Your task to perform on an android device: Clear the shopping cart on newegg.com. Add apple airpods to the cart on newegg.com Image 0: 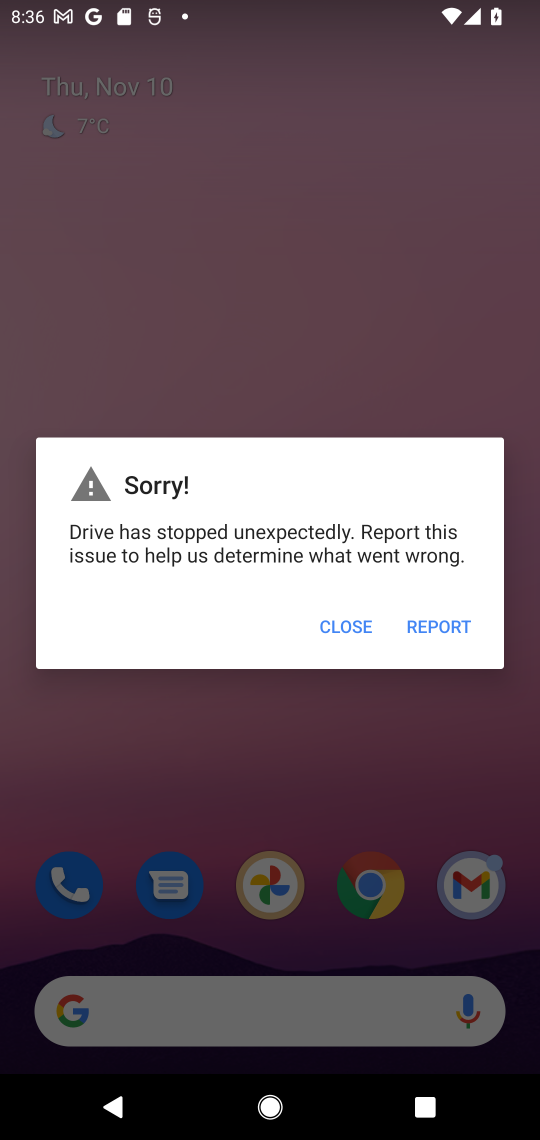
Step 0: press home button
Your task to perform on an android device: Clear the shopping cart on newegg.com. Add apple airpods to the cart on newegg.com Image 1: 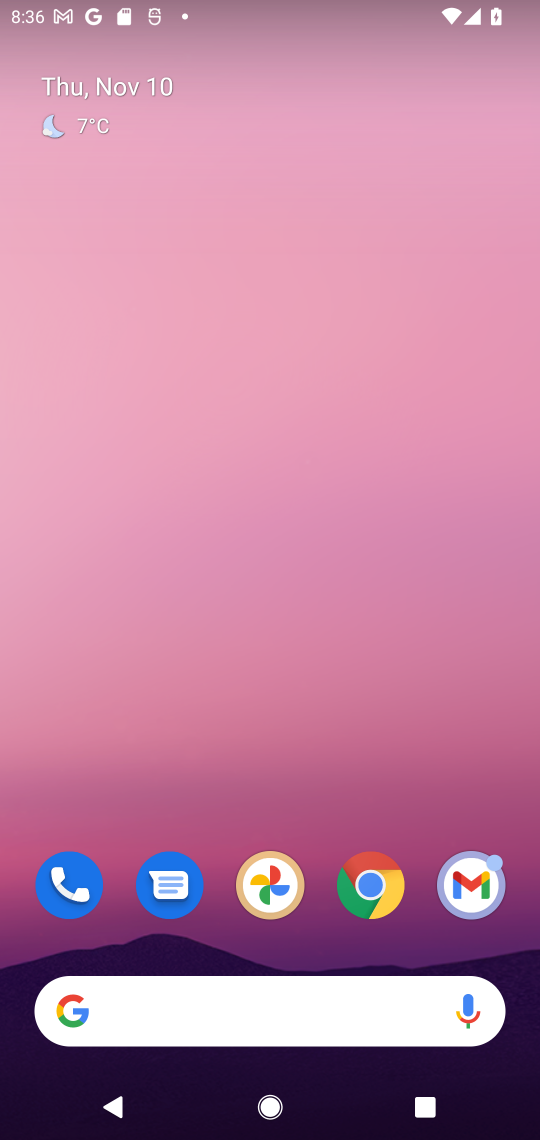
Step 1: click (362, 868)
Your task to perform on an android device: Clear the shopping cart on newegg.com. Add apple airpods to the cart on newegg.com Image 2: 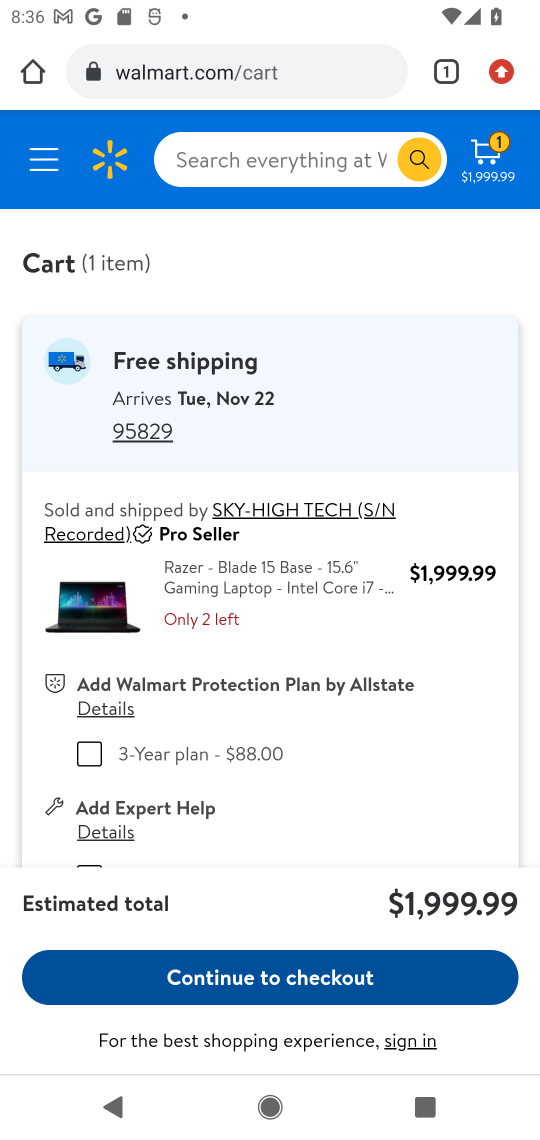
Step 2: click (279, 67)
Your task to perform on an android device: Clear the shopping cart on newegg.com. Add apple airpods to the cart on newegg.com Image 3: 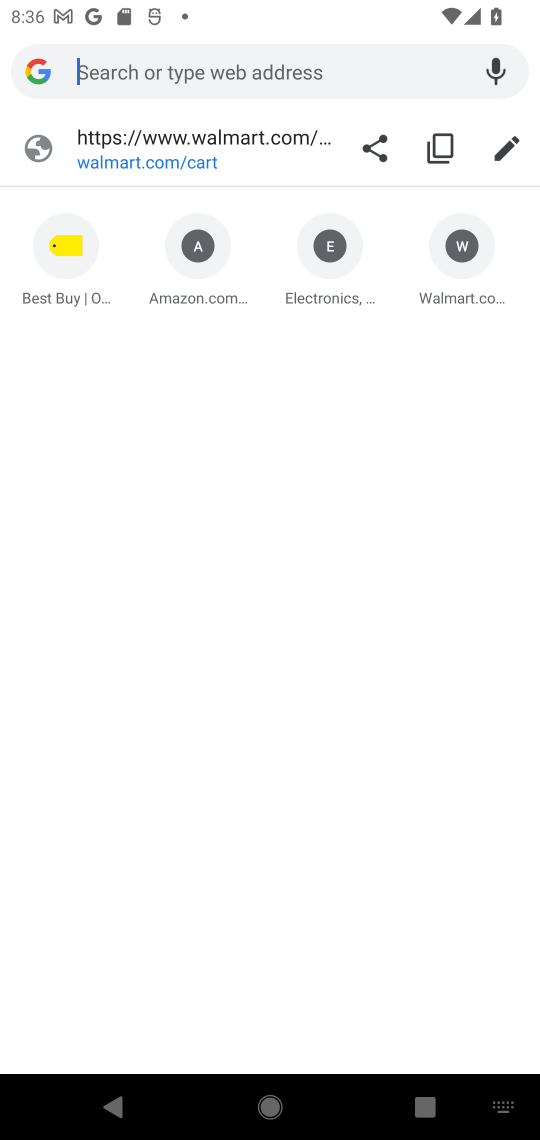
Step 3: type "newegg.com"
Your task to perform on an android device: Clear the shopping cart on newegg.com. Add apple airpods to the cart on newegg.com Image 4: 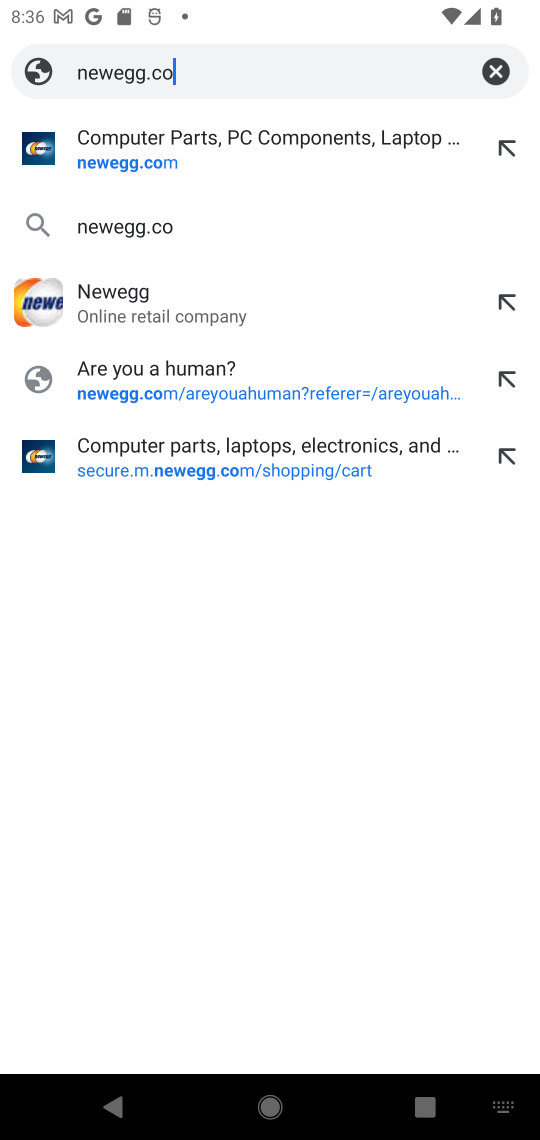
Step 4: press enter
Your task to perform on an android device: Clear the shopping cart on newegg.com. Add apple airpods to the cart on newegg.com Image 5: 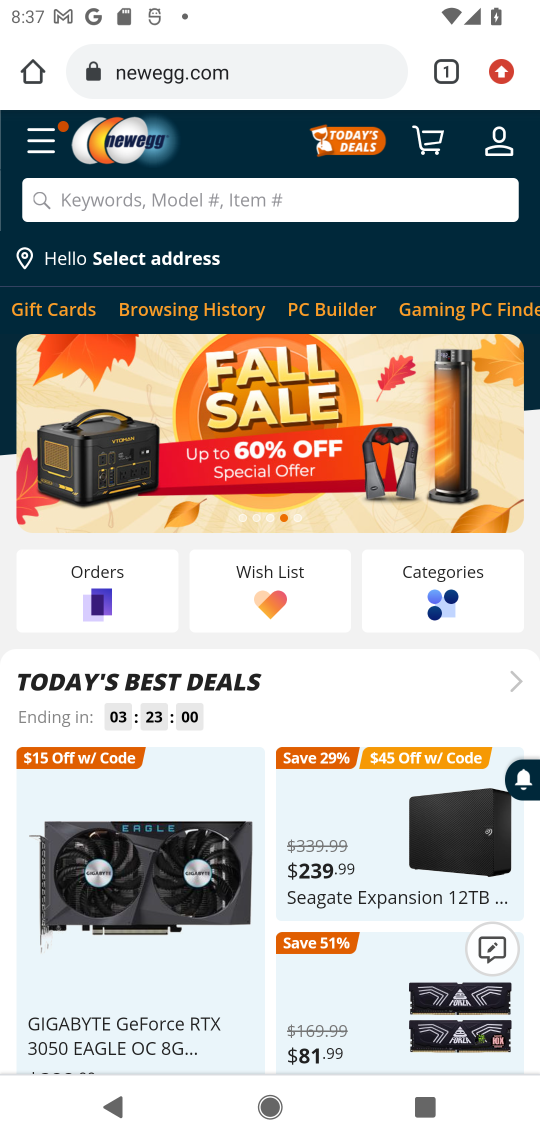
Step 5: click (431, 142)
Your task to perform on an android device: Clear the shopping cart on newegg.com. Add apple airpods to the cart on newegg.com Image 6: 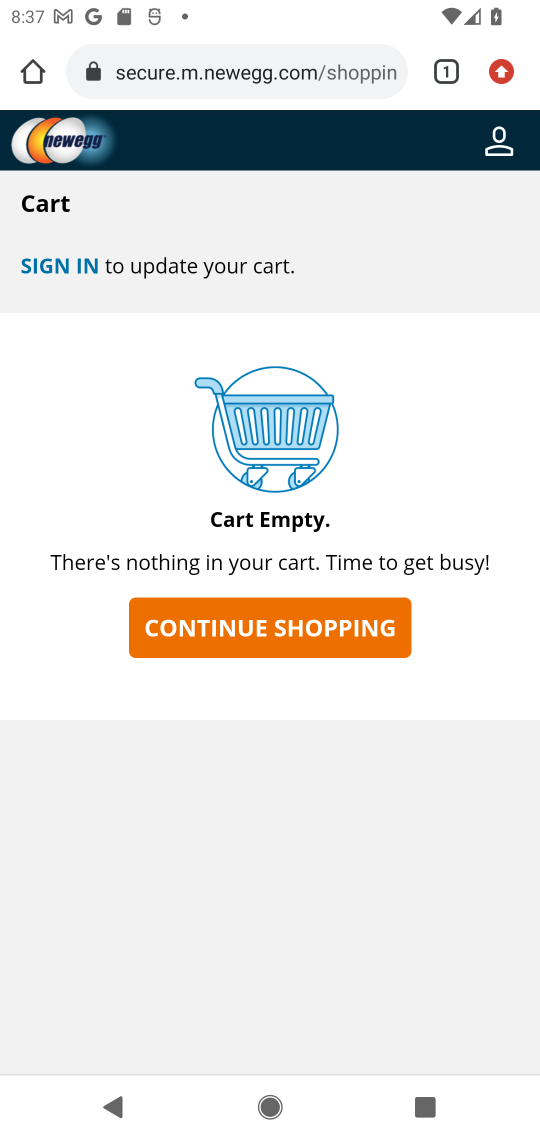
Step 6: press back button
Your task to perform on an android device: Clear the shopping cart on newegg.com. Add apple airpods to the cart on newegg.com Image 7: 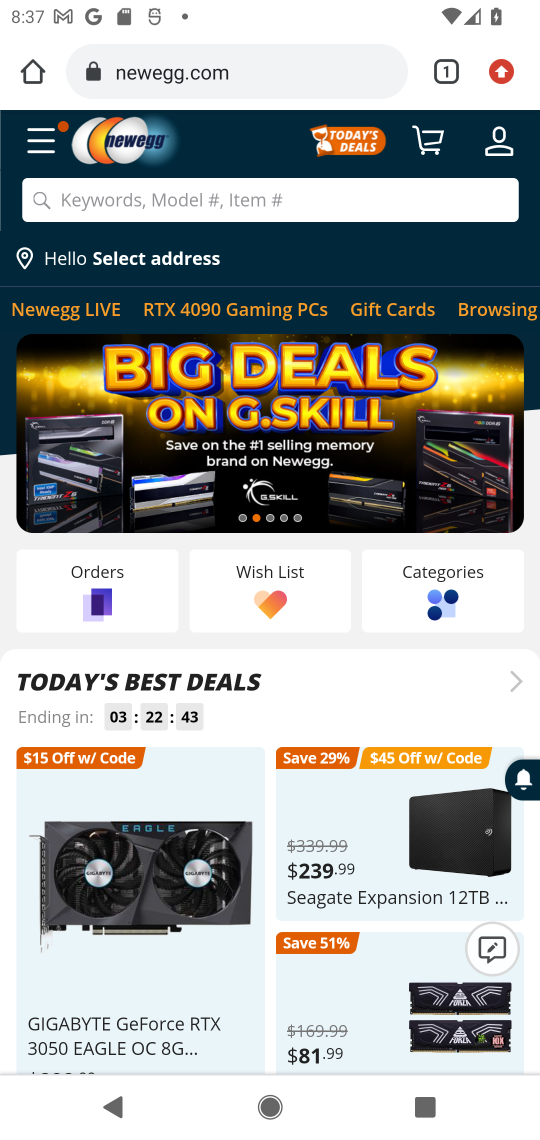
Step 7: click (407, 204)
Your task to perform on an android device: Clear the shopping cart on newegg.com. Add apple airpods to the cart on newegg.com Image 8: 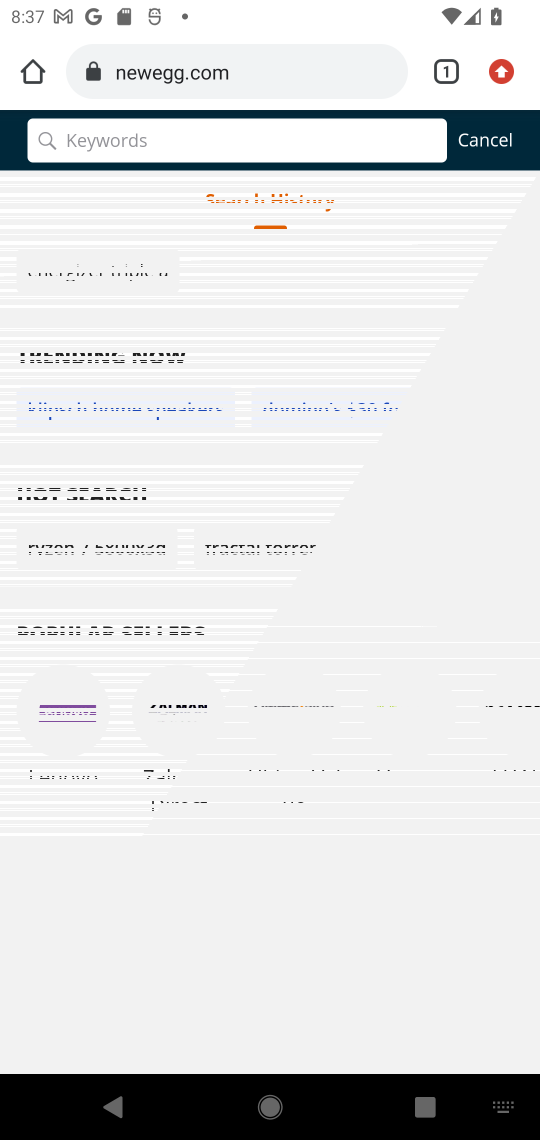
Step 8: type "apple airpods"
Your task to perform on an android device: Clear the shopping cart on newegg.com. Add apple airpods to the cart on newegg.com Image 9: 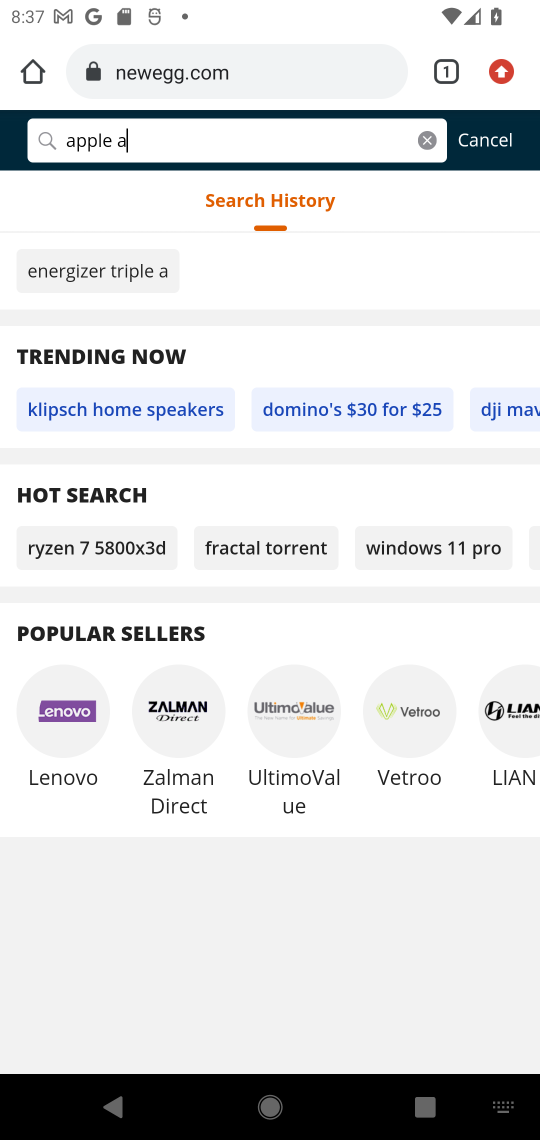
Step 9: press enter
Your task to perform on an android device: Clear the shopping cart on newegg.com. Add apple airpods to the cart on newegg.com Image 10: 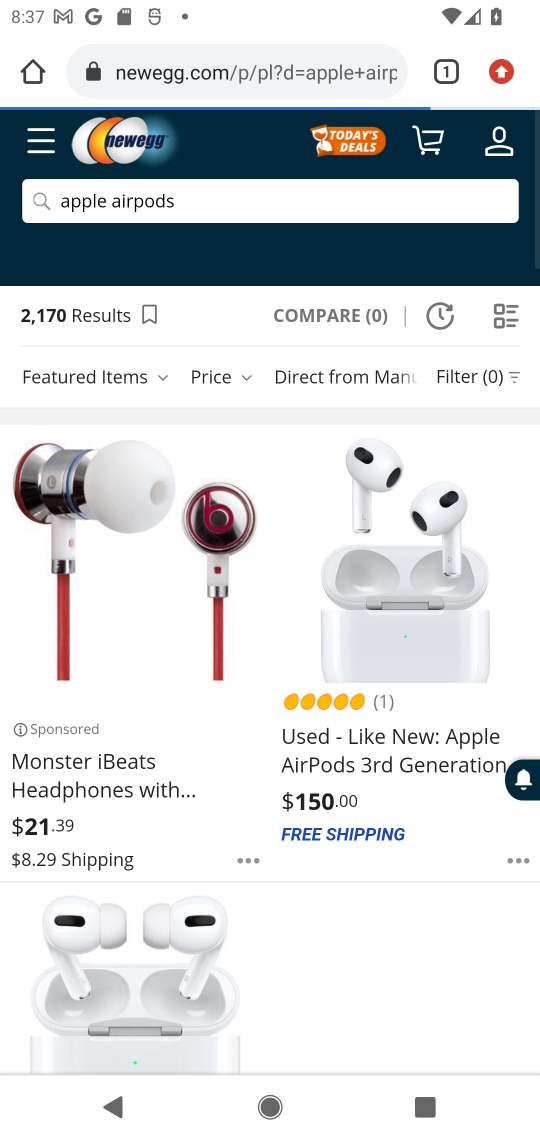
Step 10: click (125, 640)
Your task to perform on an android device: Clear the shopping cart on newegg.com. Add apple airpods to the cart on newegg.com Image 11: 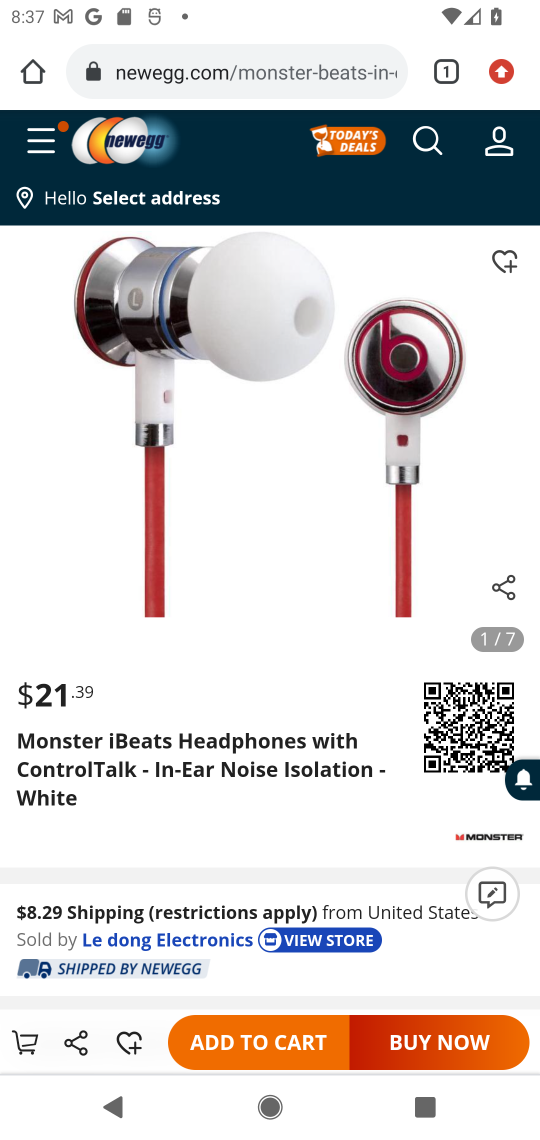
Step 11: press back button
Your task to perform on an android device: Clear the shopping cart on newegg.com. Add apple airpods to the cart on newegg.com Image 12: 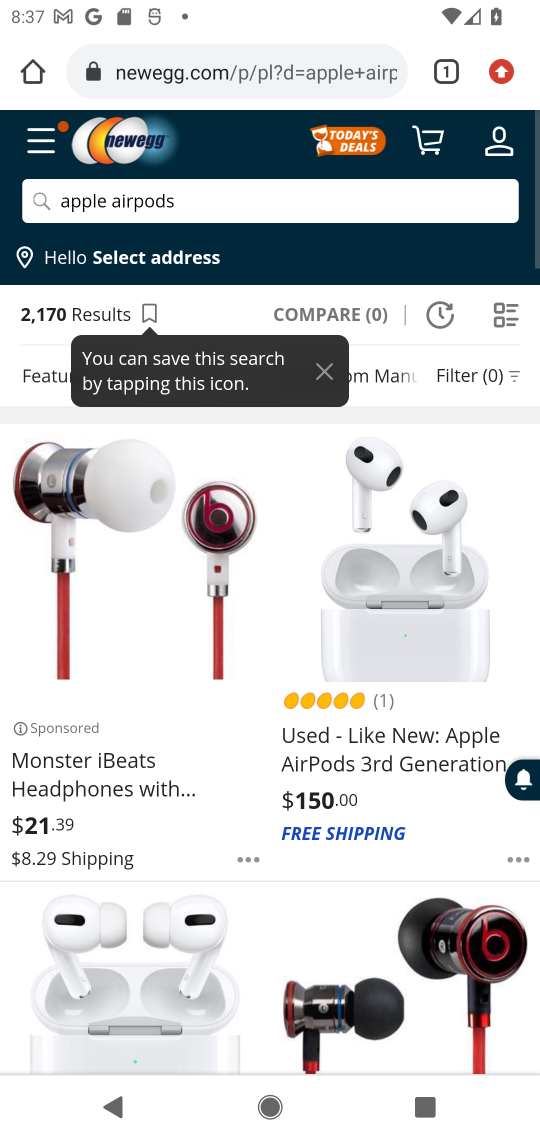
Step 12: click (283, 195)
Your task to perform on an android device: Clear the shopping cart on newegg.com. Add apple airpods to the cart on newegg.com Image 13: 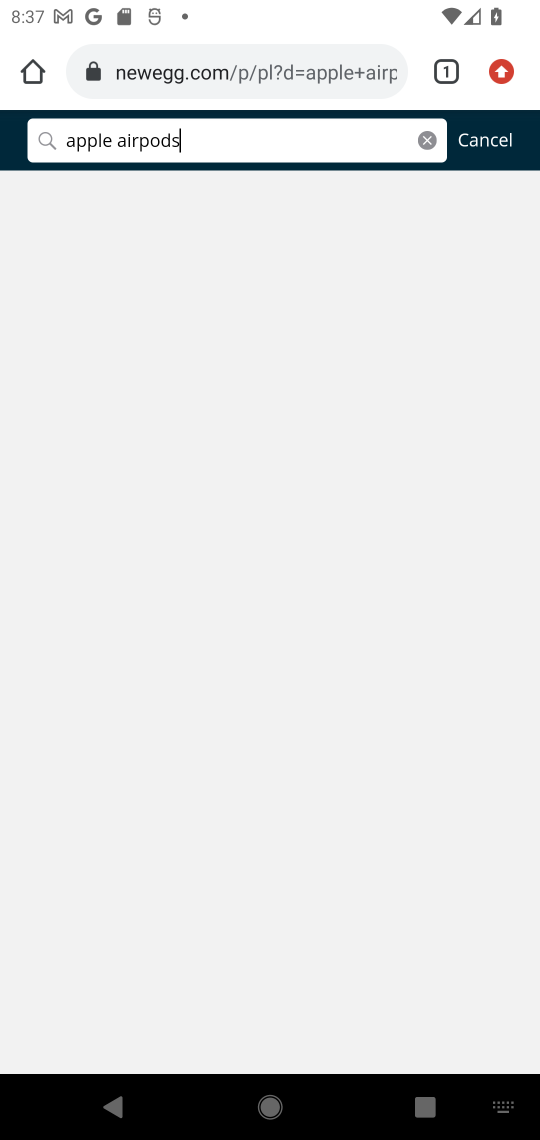
Step 13: drag from (422, 821) to (397, 334)
Your task to perform on an android device: Clear the shopping cart on newegg.com. Add apple airpods to the cart on newegg.com Image 14: 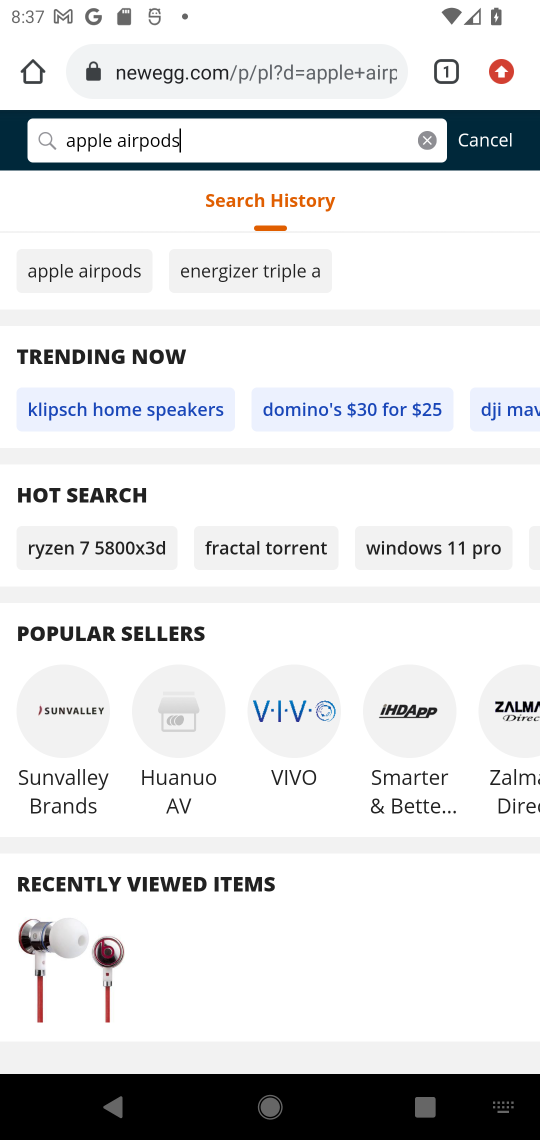
Step 14: click (314, 145)
Your task to perform on an android device: Clear the shopping cart on newegg.com. Add apple airpods to the cart on newegg.com Image 15: 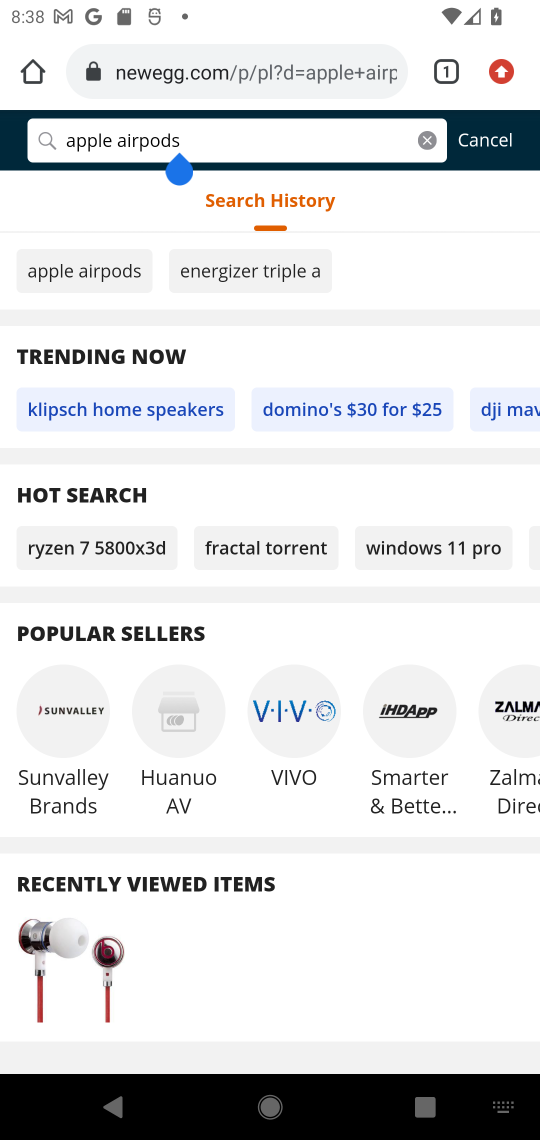
Step 15: click (500, 148)
Your task to perform on an android device: Clear the shopping cart on newegg.com. Add apple airpods to the cart on newegg.com Image 16: 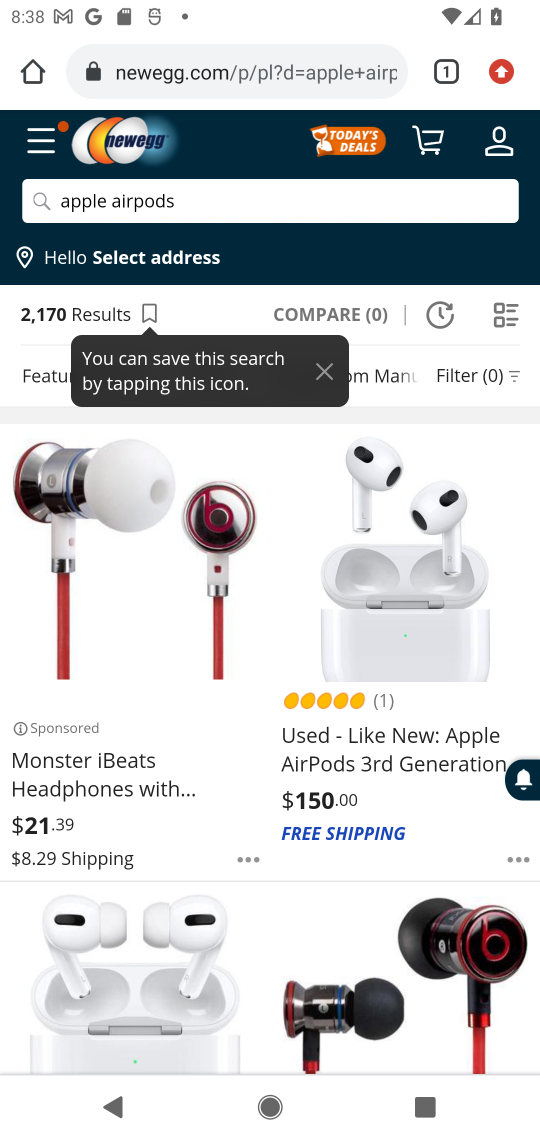
Step 16: drag from (408, 642) to (413, 441)
Your task to perform on an android device: Clear the shopping cart on newegg.com. Add apple airpods to the cart on newegg.com Image 17: 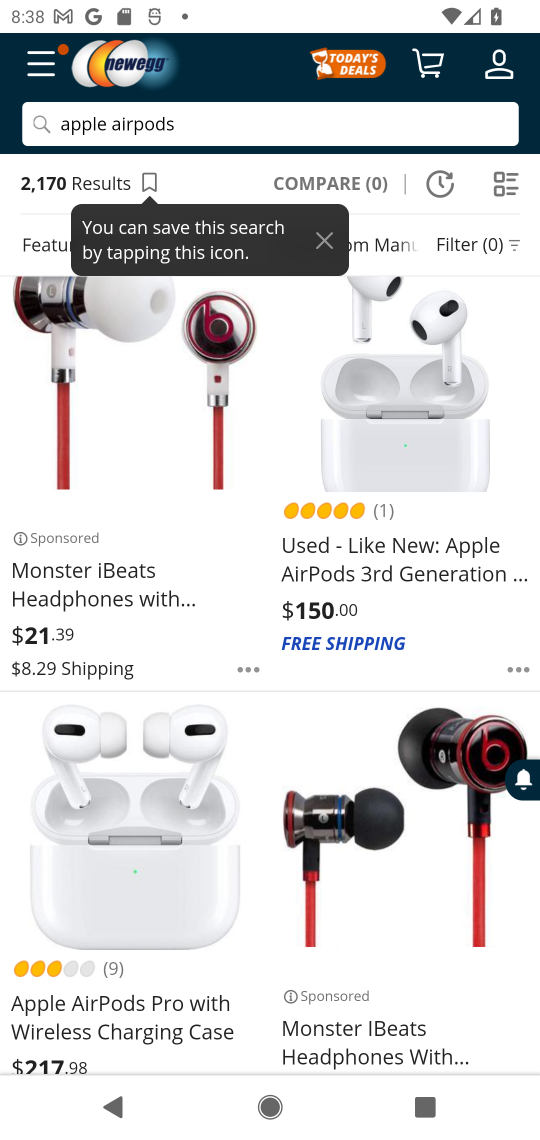
Step 17: click (143, 810)
Your task to perform on an android device: Clear the shopping cart on newegg.com. Add apple airpods to the cart on newegg.com Image 18: 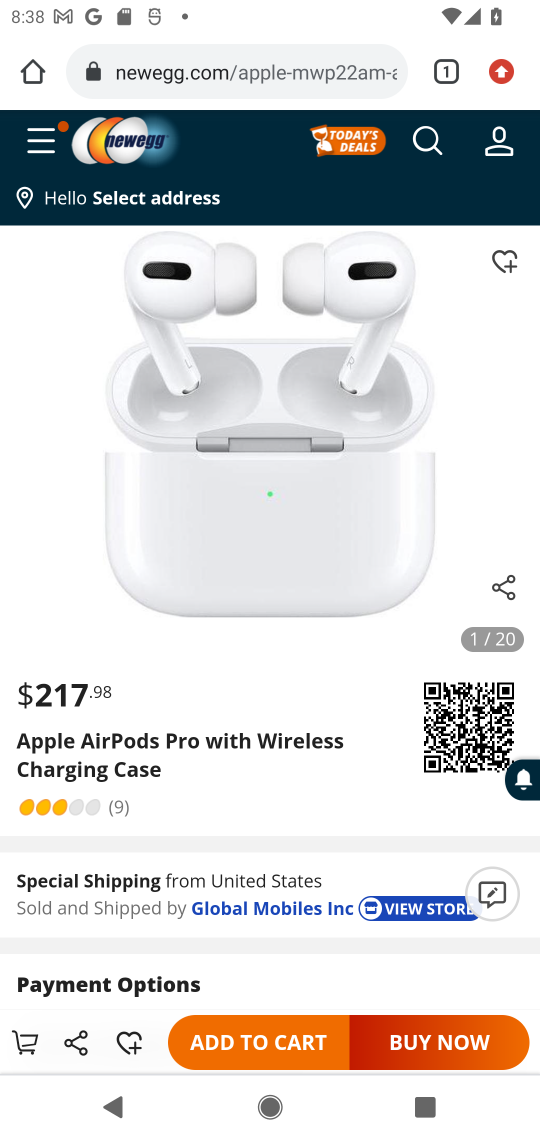
Step 18: click (260, 1045)
Your task to perform on an android device: Clear the shopping cart on newegg.com. Add apple airpods to the cart on newegg.com Image 19: 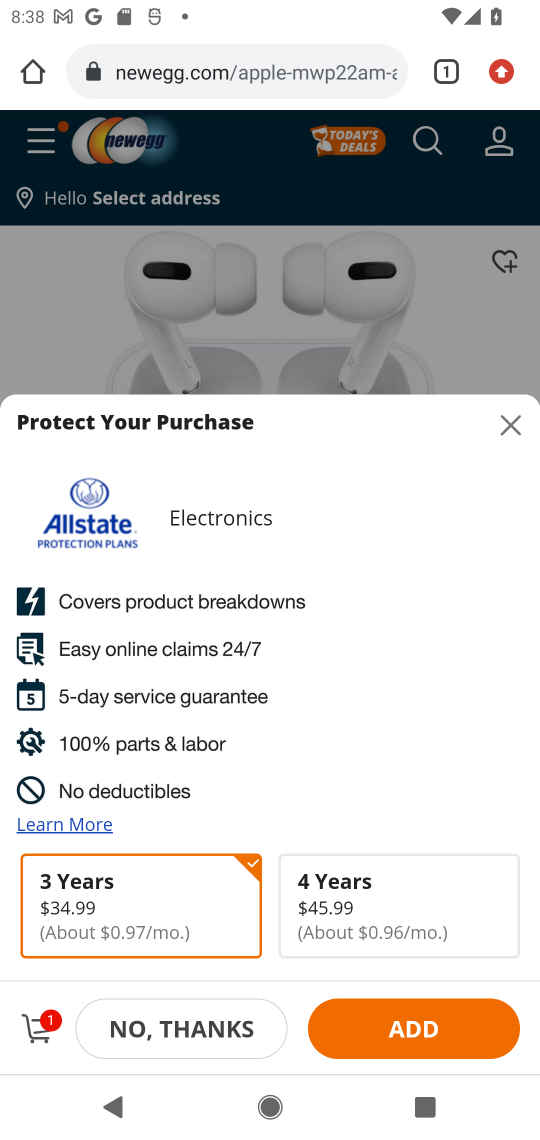
Step 19: click (511, 427)
Your task to perform on an android device: Clear the shopping cart on newegg.com. Add apple airpods to the cart on newegg.com Image 20: 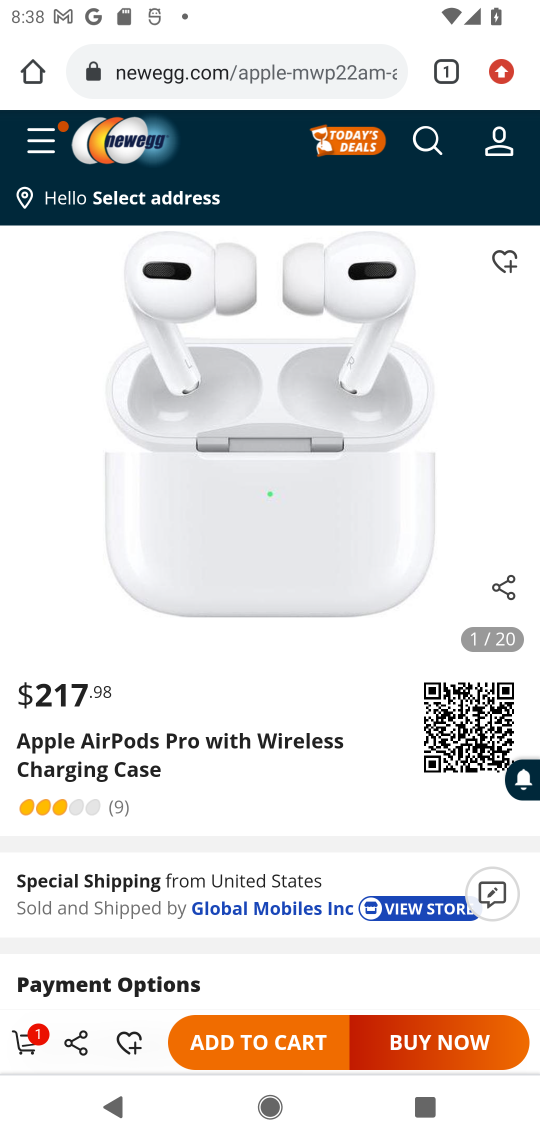
Step 20: task complete